Your task to perform on an android device: set an alarm Image 0: 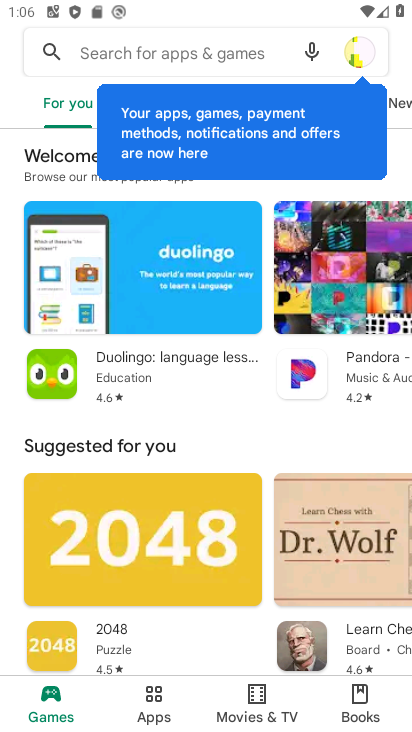
Step 0: press home button
Your task to perform on an android device: set an alarm Image 1: 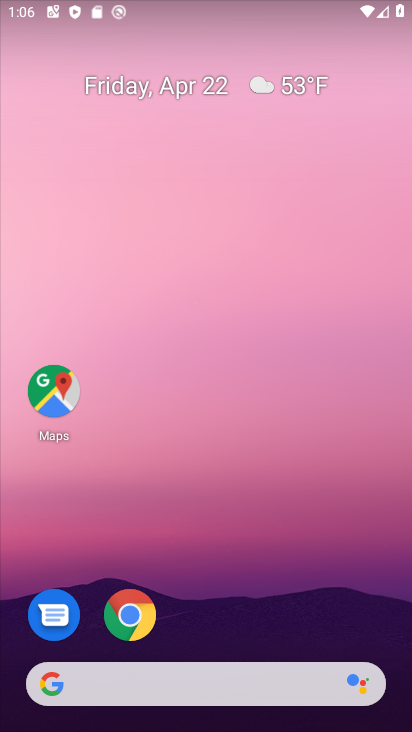
Step 1: drag from (336, 581) to (355, 0)
Your task to perform on an android device: set an alarm Image 2: 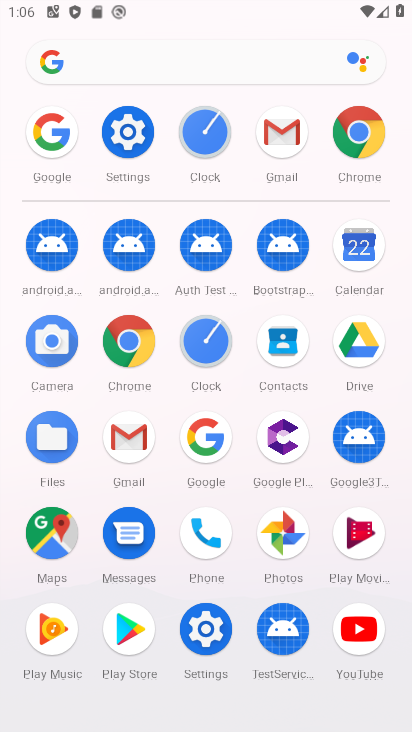
Step 2: click (202, 138)
Your task to perform on an android device: set an alarm Image 3: 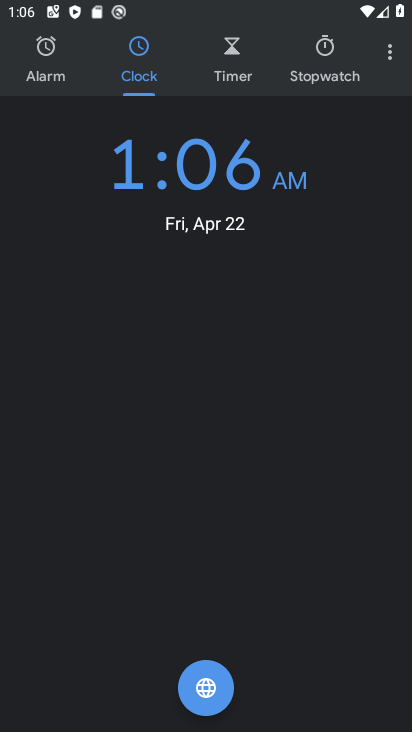
Step 3: click (57, 67)
Your task to perform on an android device: set an alarm Image 4: 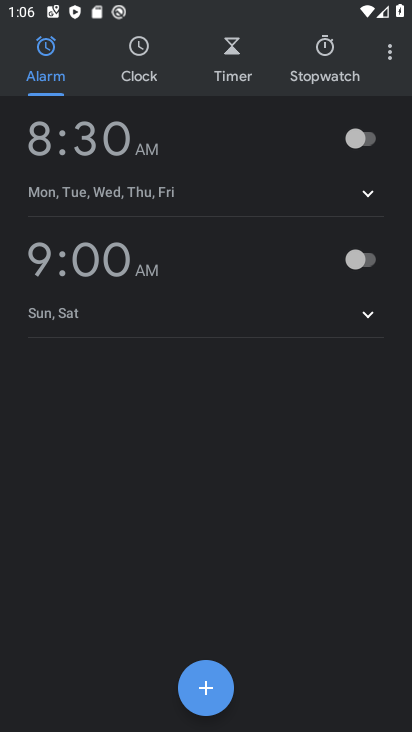
Step 4: click (207, 690)
Your task to perform on an android device: set an alarm Image 5: 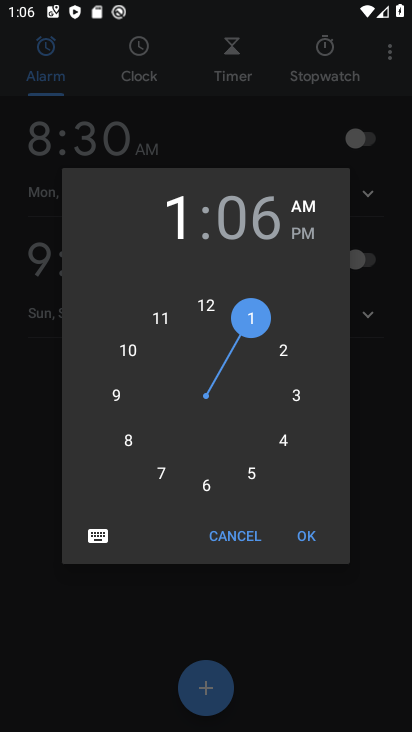
Step 5: click (249, 476)
Your task to perform on an android device: set an alarm Image 6: 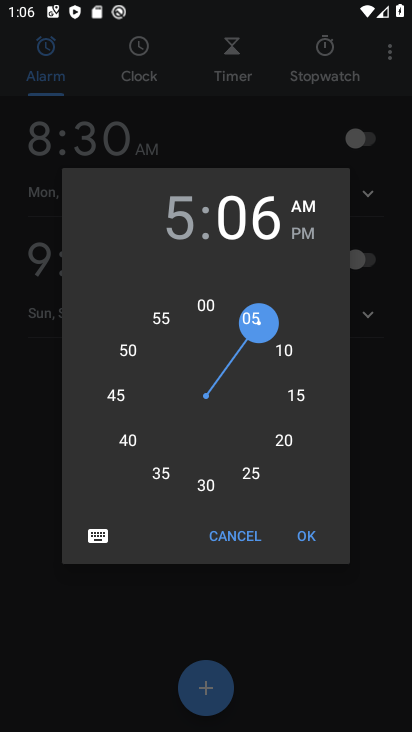
Step 6: click (209, 308)
Your task to perform on an android device: set an alarm Image 7: 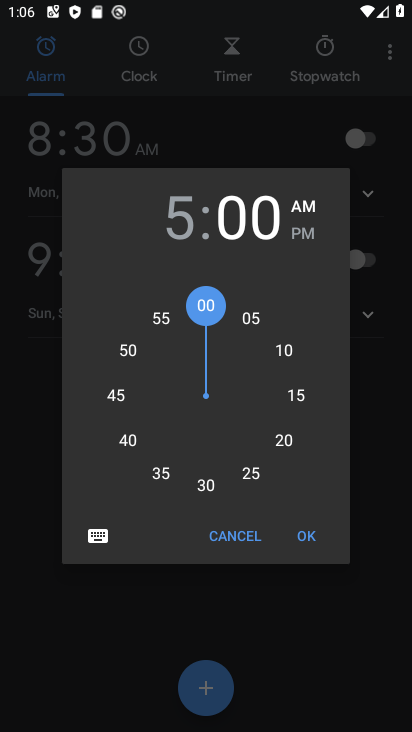
Step 7: click (303, 540)
Your task to perform on an android device: set an alarm Image 8: 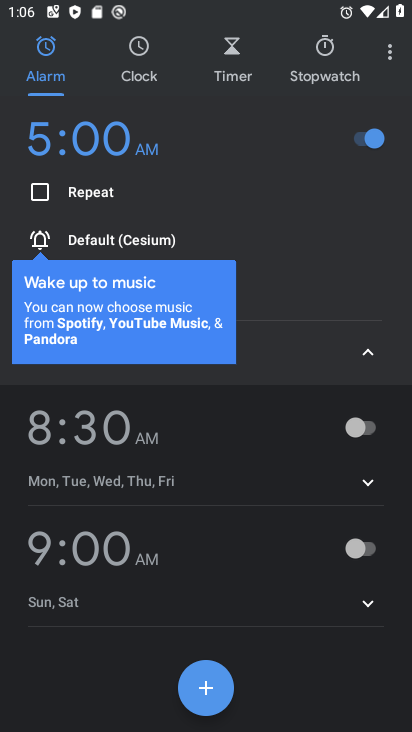
Step 8: task complete